Your task to perform on an android device: Open display settings Image 0: 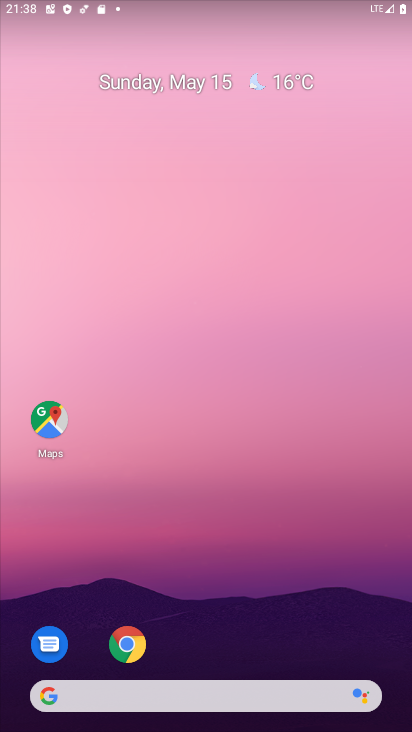
Step 0: drag from (187, 4) to (209, 392)
Your task to perform on an android device: Open display settings Image 1: 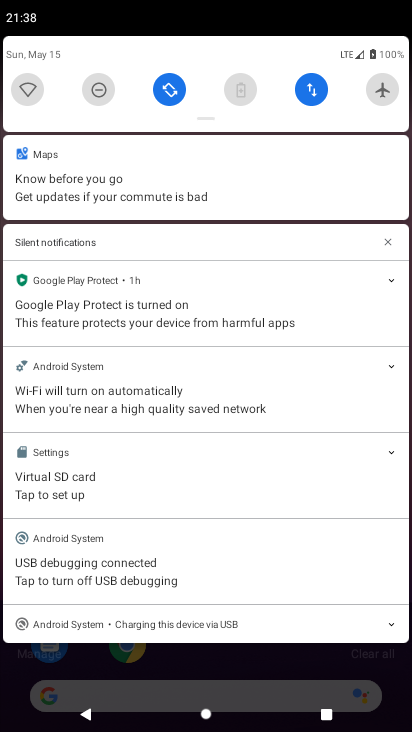
Step 1: drag from (209, 396) to (260, 13)
Your task to perform on an android device: Open display settings Image 2: 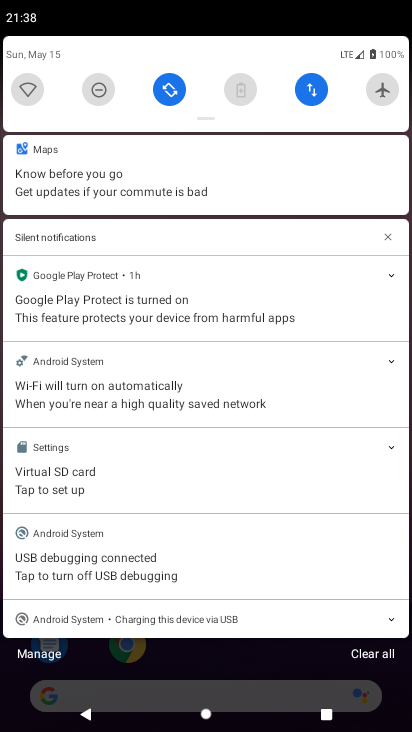
Step 2: drag from (198, 604) to (312, 122)
Your task to perform on an android device: Open display settings Image 3: 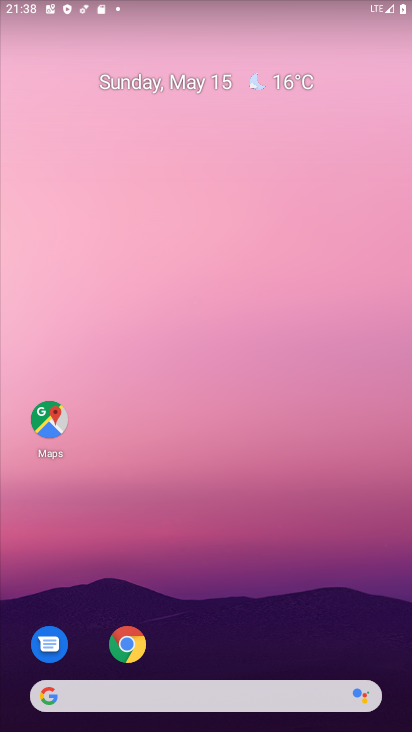
Step 3: drag from (194, 588) to (289, 129)
Your task to perform on an android device: Open display settings Image 4: 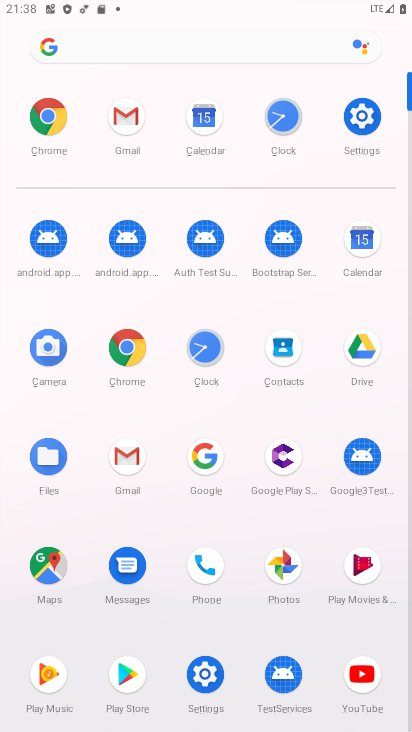
Step 4: click (361, 115)
Your task to perform on an android device: Open display settings Image 5: 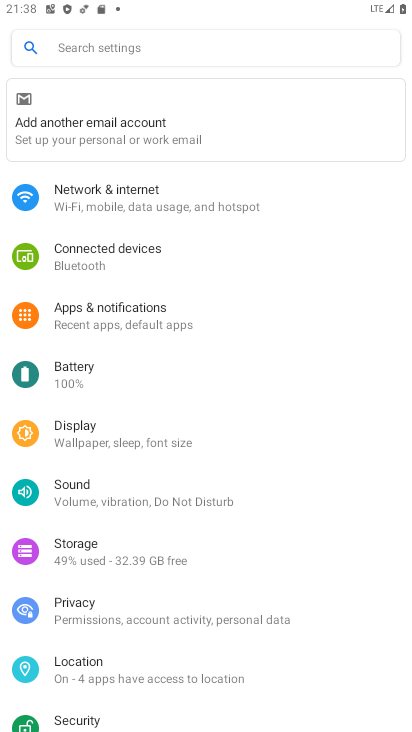
Step 5: click (78, 436)
Your task to perform on an android device: Open display settings Image 6: 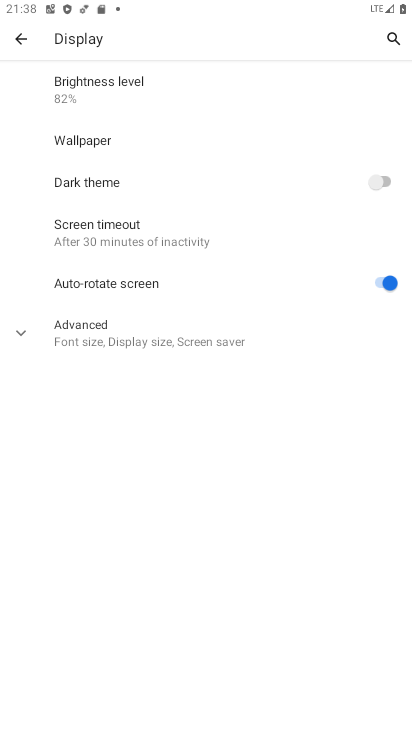
Step 6: task complete